Your task to perform on an android device: show emergency info Image 0: 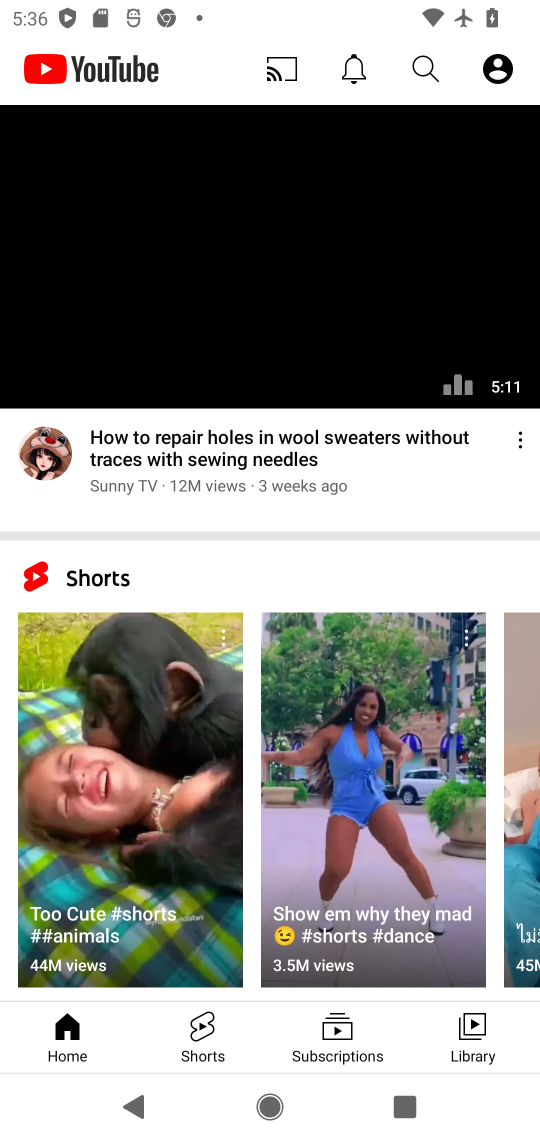
Step 0: press home button
Your task to perform on an android device: show emergency info Image 1: 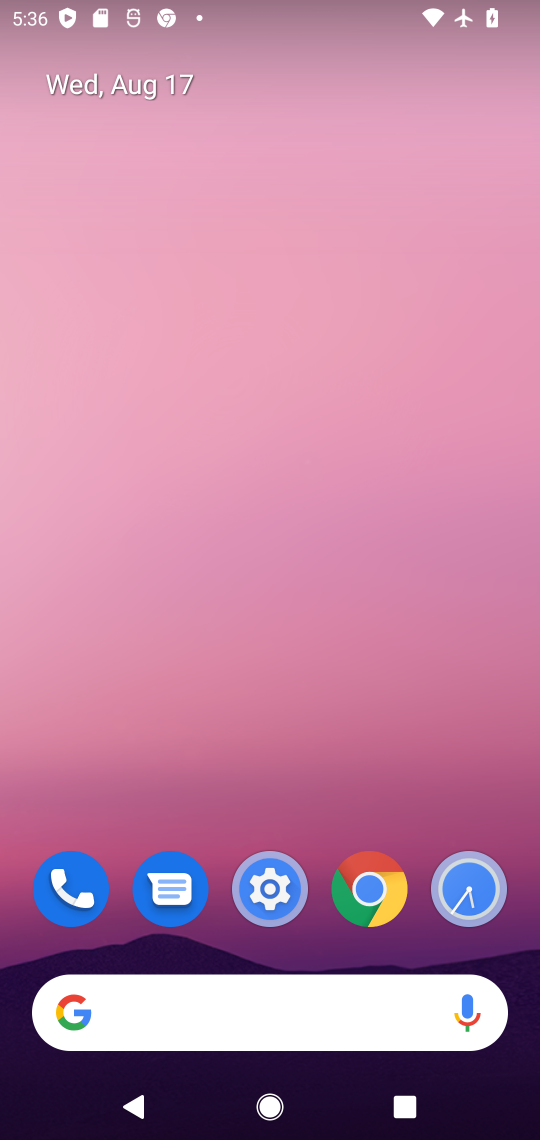
Step 1: click (270, 887)
Your task to perform on an android device: show emergency info Image 2: 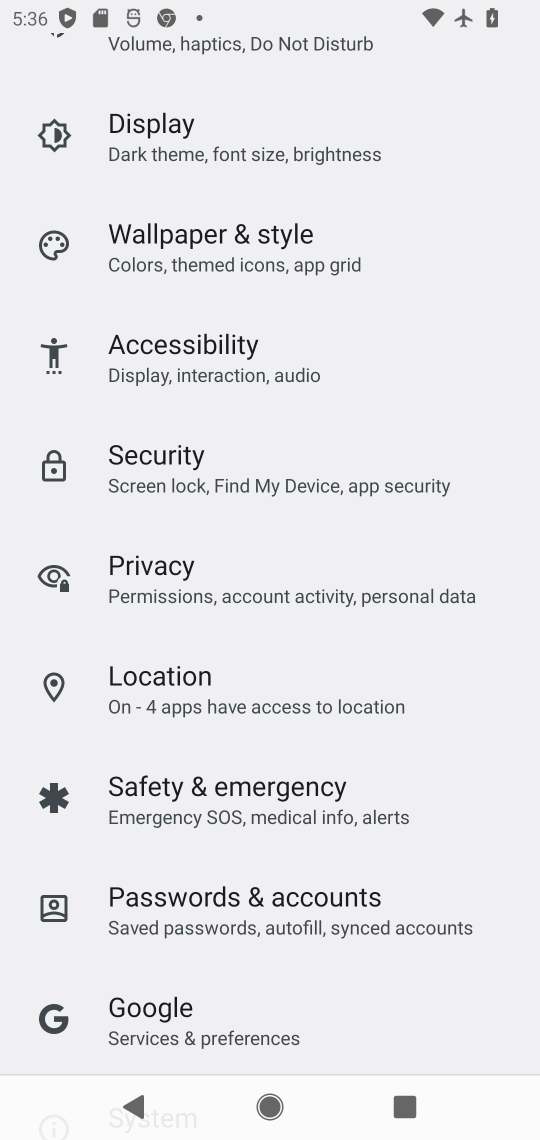
Step 2: drag from (352, 958) to (279, 208)
Your task to perform on an android device: show emergency info Image 3: 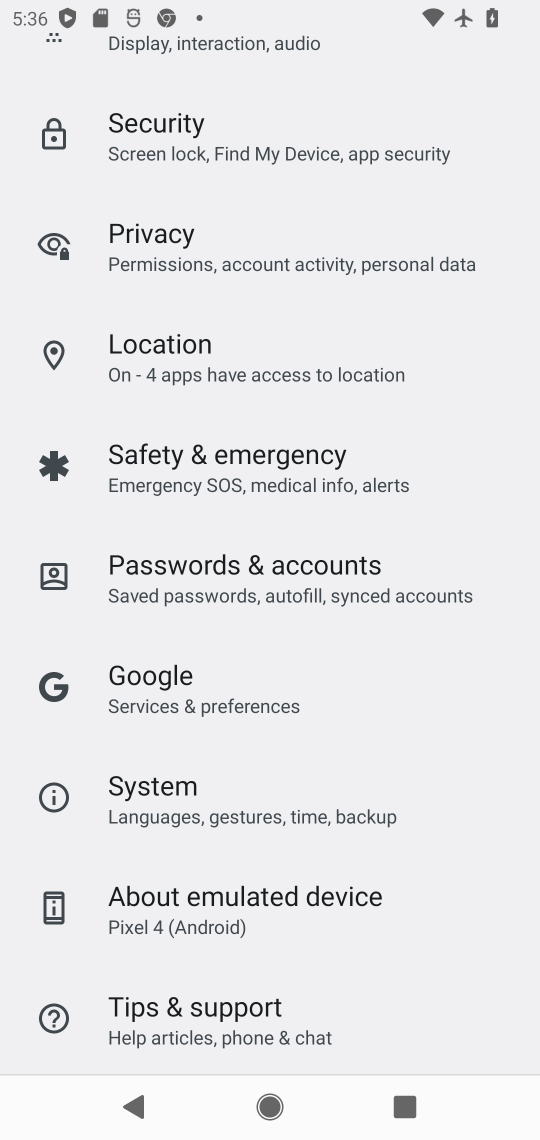
Step 3: click (190, 900)
Your task to perform on an android device: show emergency info Image 4: 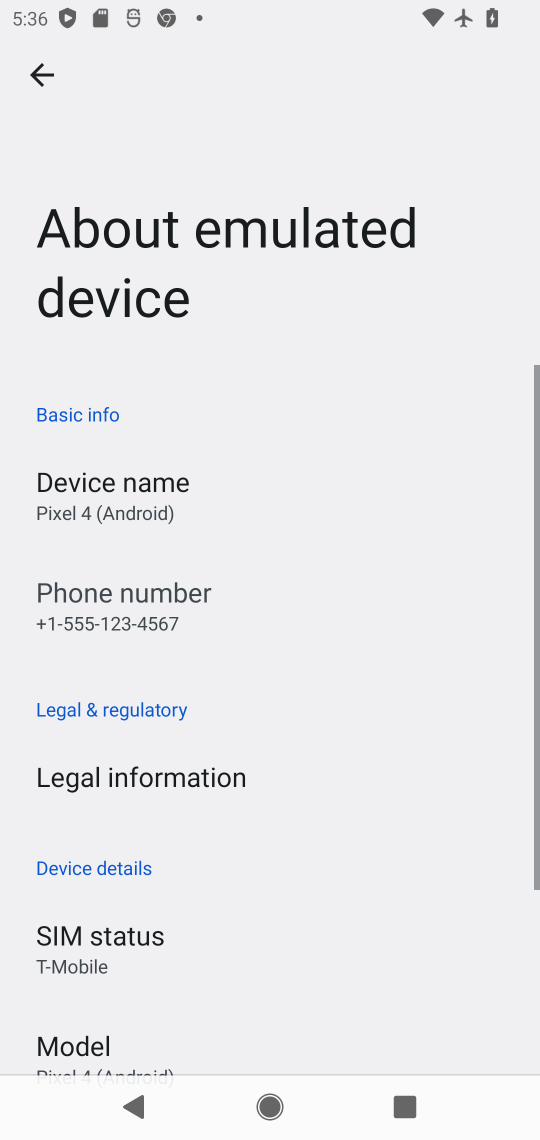
Step 4: task complete